Your task to perform on an android device: See recent photos Image 0: 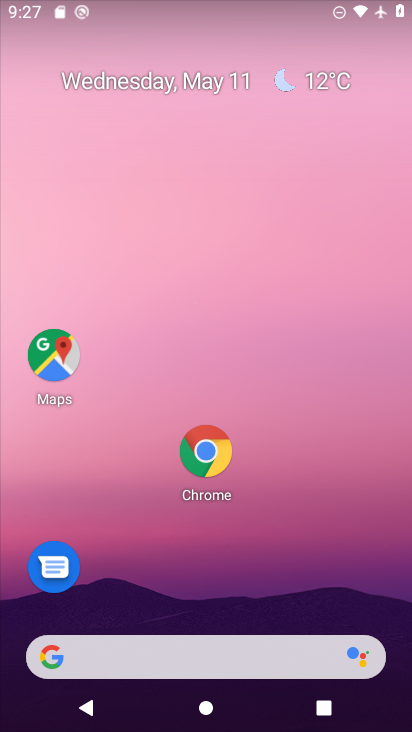
Step 0: drag from (160, 630) to (247, 148)
Your task to perform on an android device: See recent photos Image 1: 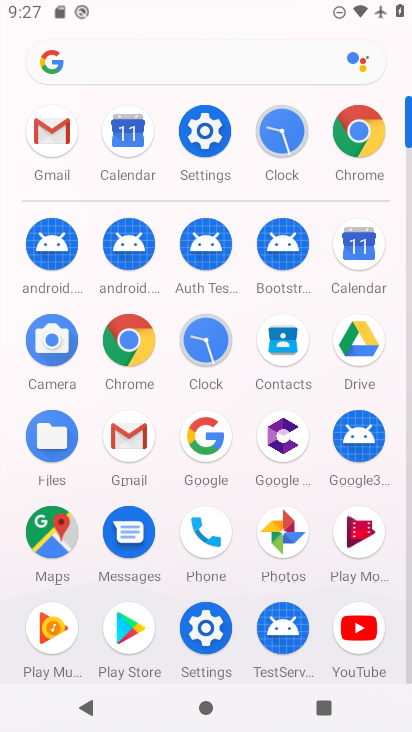
Step 1: click (287, 538)
Your task to perform on an android device: See recent photos Image 2: 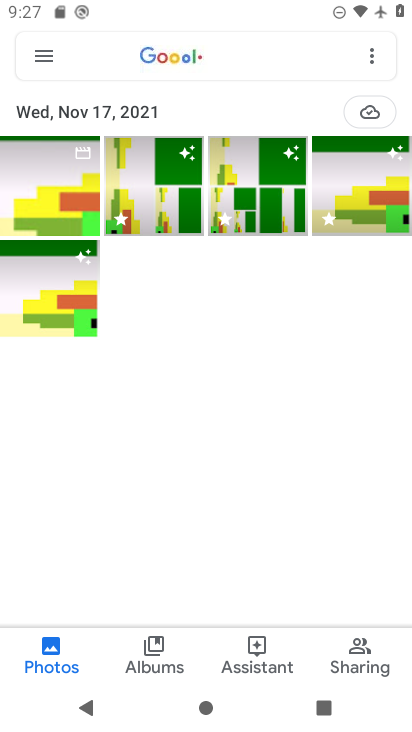
Step 2: click (159, 661)
Your task to perform on an android device: See recent photos Image 3: 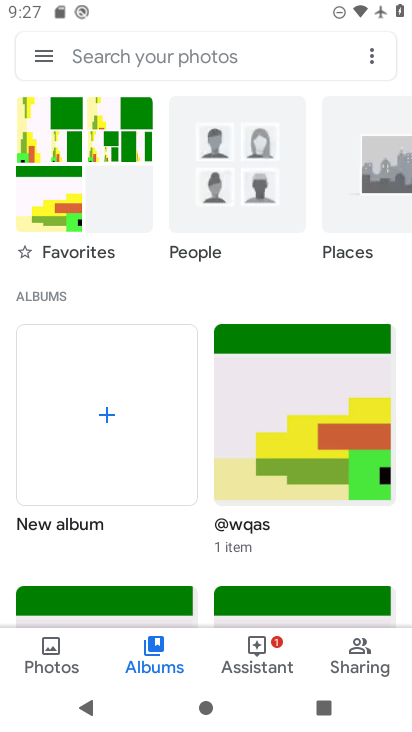
Step 3: click (359, 661)
Your task to perform on an android device: See recent photos Image 4: 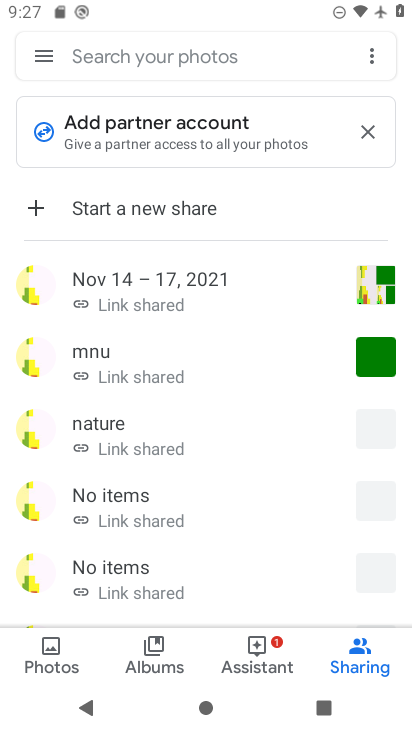
Step 4: task complete